Your task to perform on an android device: Is it going to rain this weekend? Image 0: 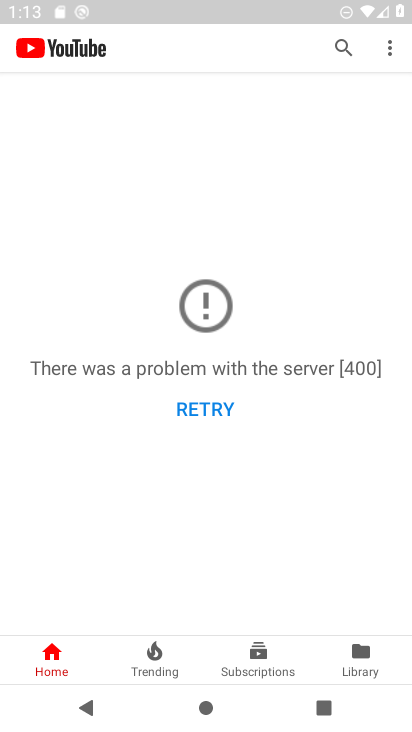
Step 0: press home button
Your task to perform on an android device: Is it going to rain this weekend? Image 1: 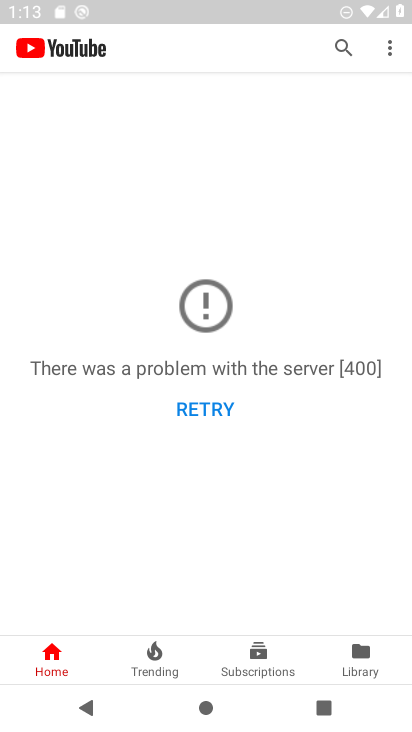
Step 1: press home button
Your task to perform on an android device: Is it going to rain this weekend? Image 2: 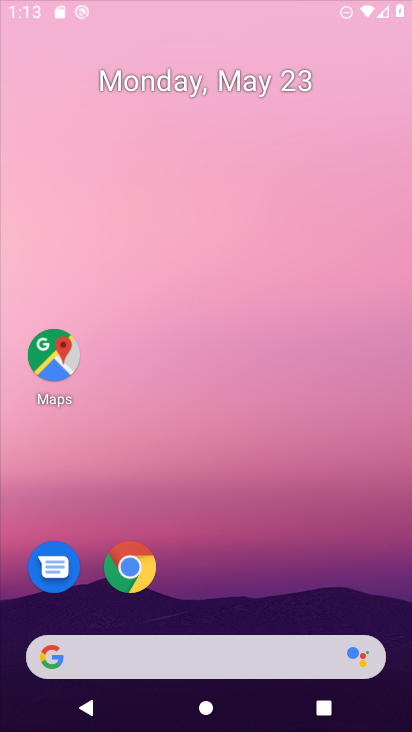
Step 2: press home button
Your task to perform on an android device: Is it going to rain this weekend? Image 3: 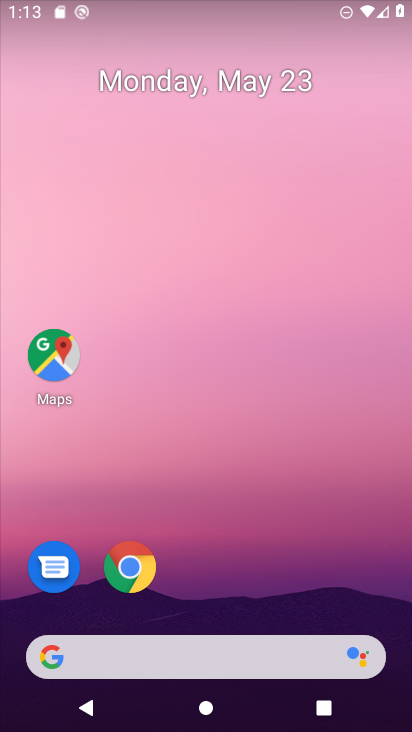
Step 3: click (122, 582)
Your task to perform on an android device: Is it going to rain this weekend? Image 4: 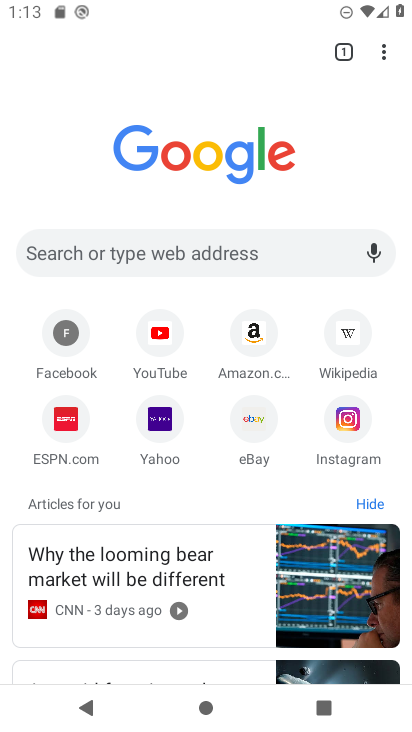
Step 4: click (232, 250)
Your task to perform on an android device: Is it going to rain this weekend? Image 5: 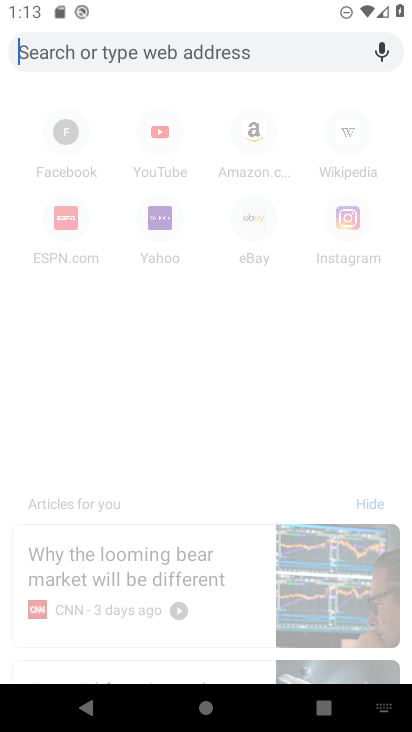
Step 5: type "Is it going to rain this weekend?"
Your task to perform on an android device: Is it going to rain this weekend? Image 6: 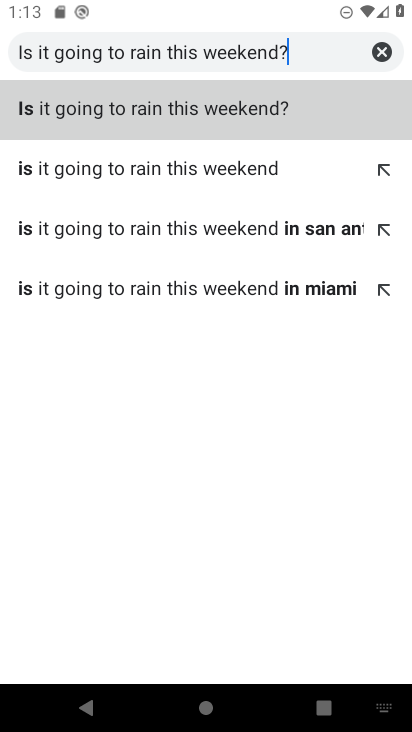
Step 6: type ""
Your task to perform on an android device: Is it going to rain this weekend? Image 7: 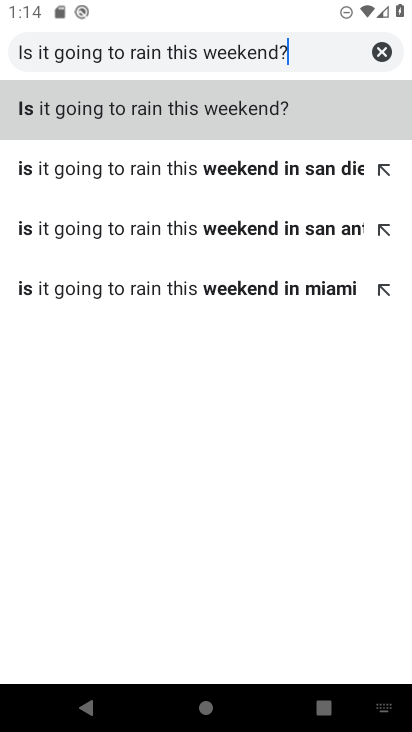
Step 7: click (264, 102)
Your task to perform on an android device: Is it going to rain this weekend? Image 8: 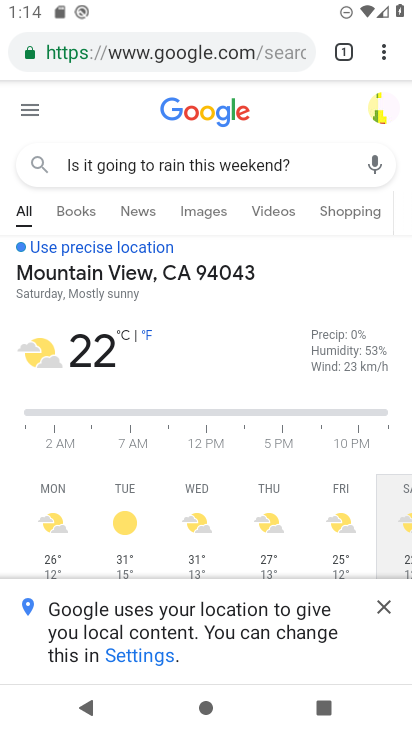
Step 8: task complete